Your task to perform on an android device: uninstall "Spotify: Music and Podcasts" Image 0: 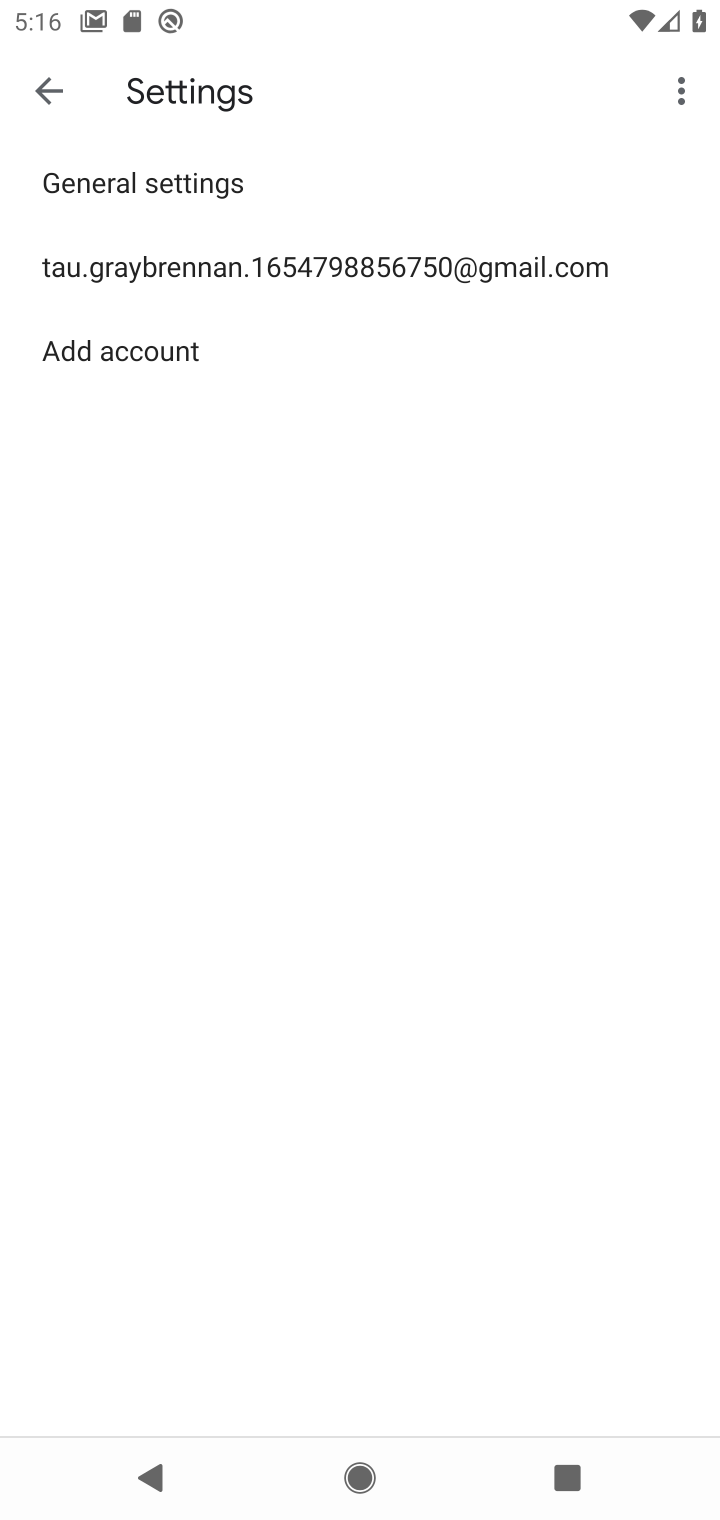
Step 0: press back button
Your task to perform on an android device: uninstall "Spotify: Music and Podcasts" Image 1: 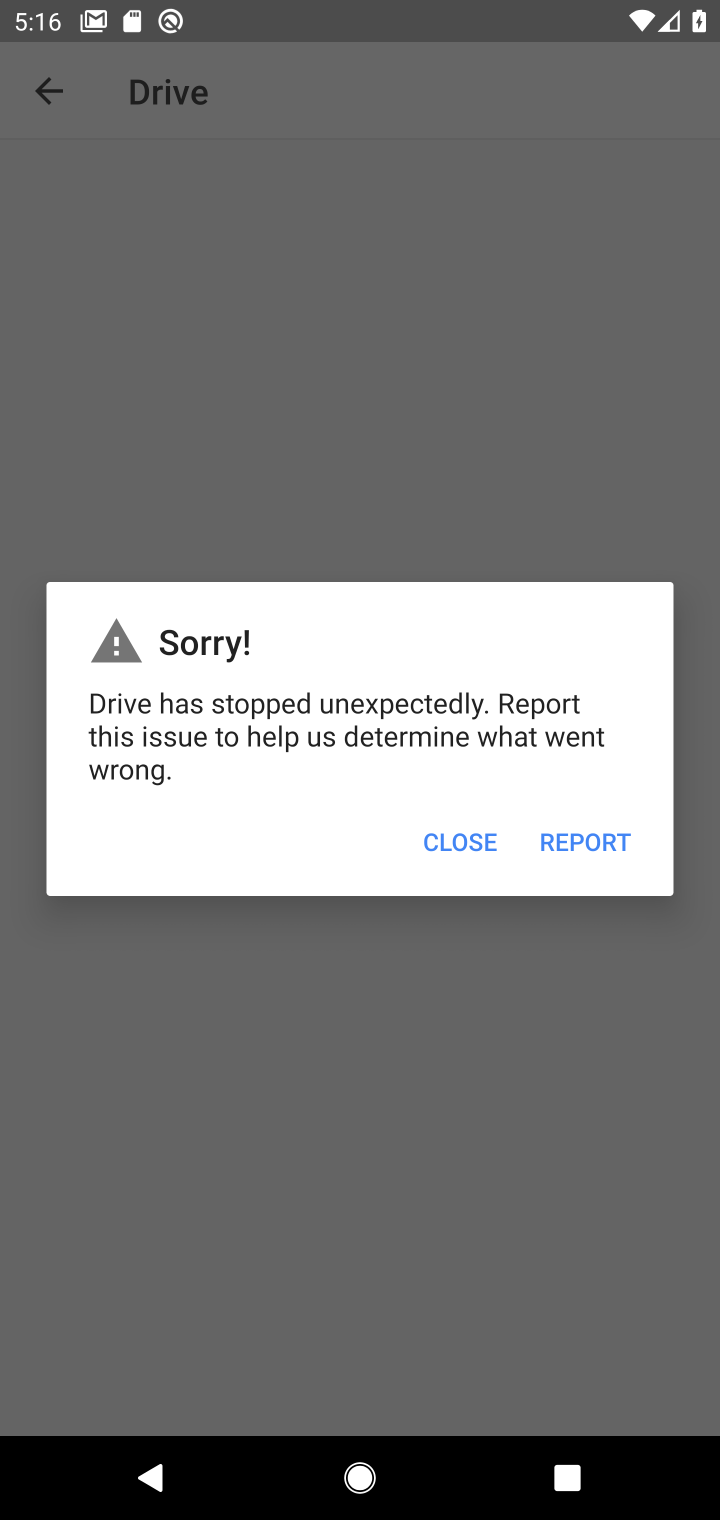
Step 1: click (464, 839)
Your task to perform on an android device: uninstall "Spotify: Music and Podcasts" Image 2: 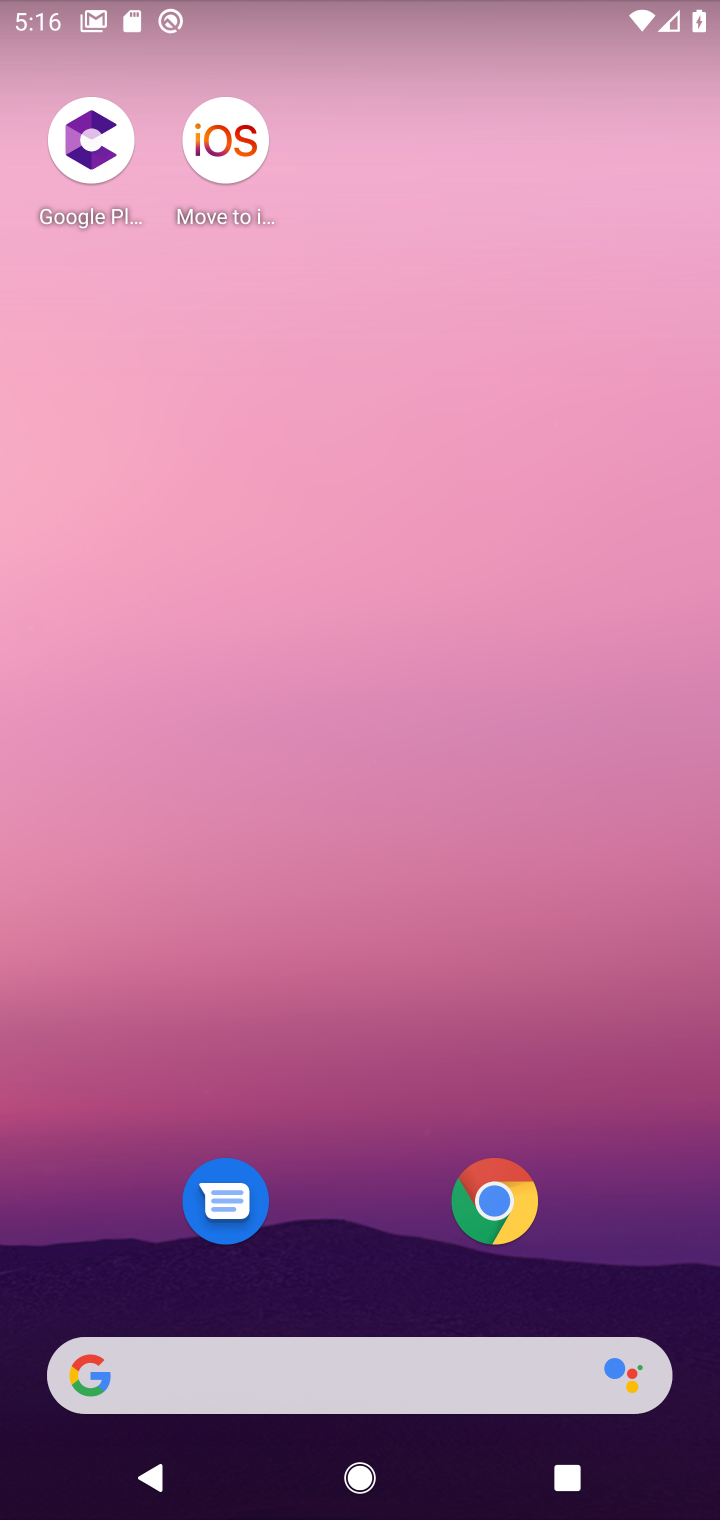
Step 2: drag from (334, 1199) to (357, 241)
Your task to perform on an android device: uninstall "Spotify: Music and Podcasts" Image 3: 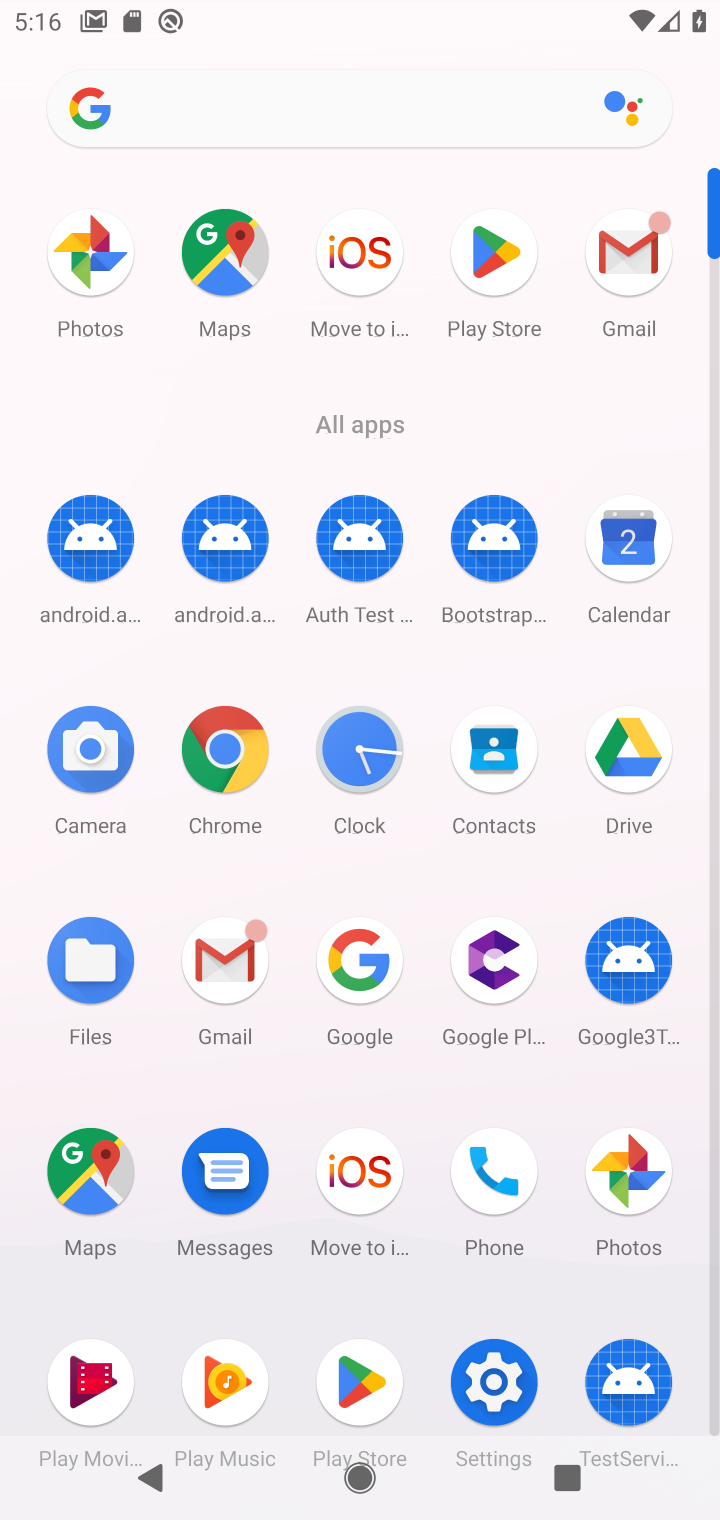
Step 3: click (350, 1388)
Your task to perform on an android device: uninstall "Spotify: Music and Podcasts" Image 4: 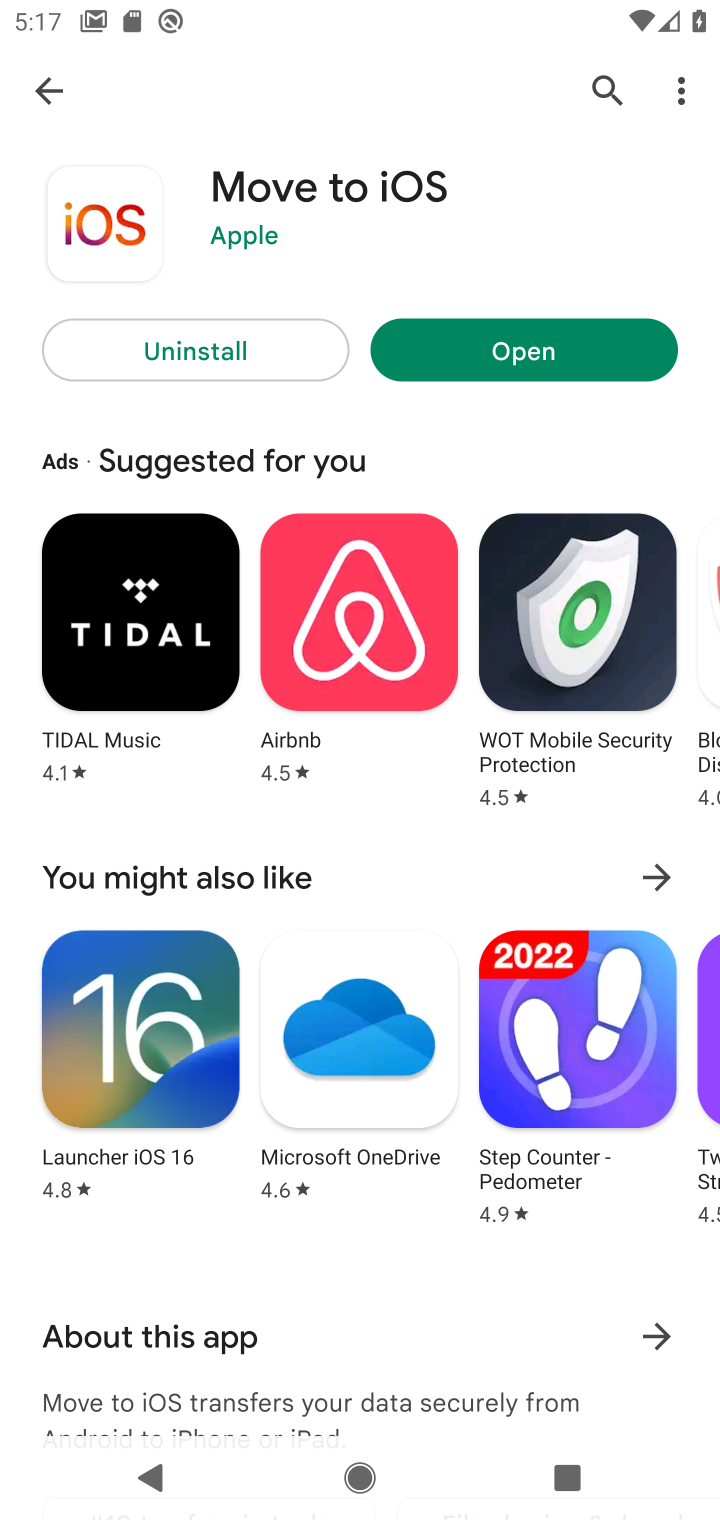
Step 4: click (595, 80)
Your task to perform on an android device: uninstall "Spotify: Music and Podcasts" Image 5: 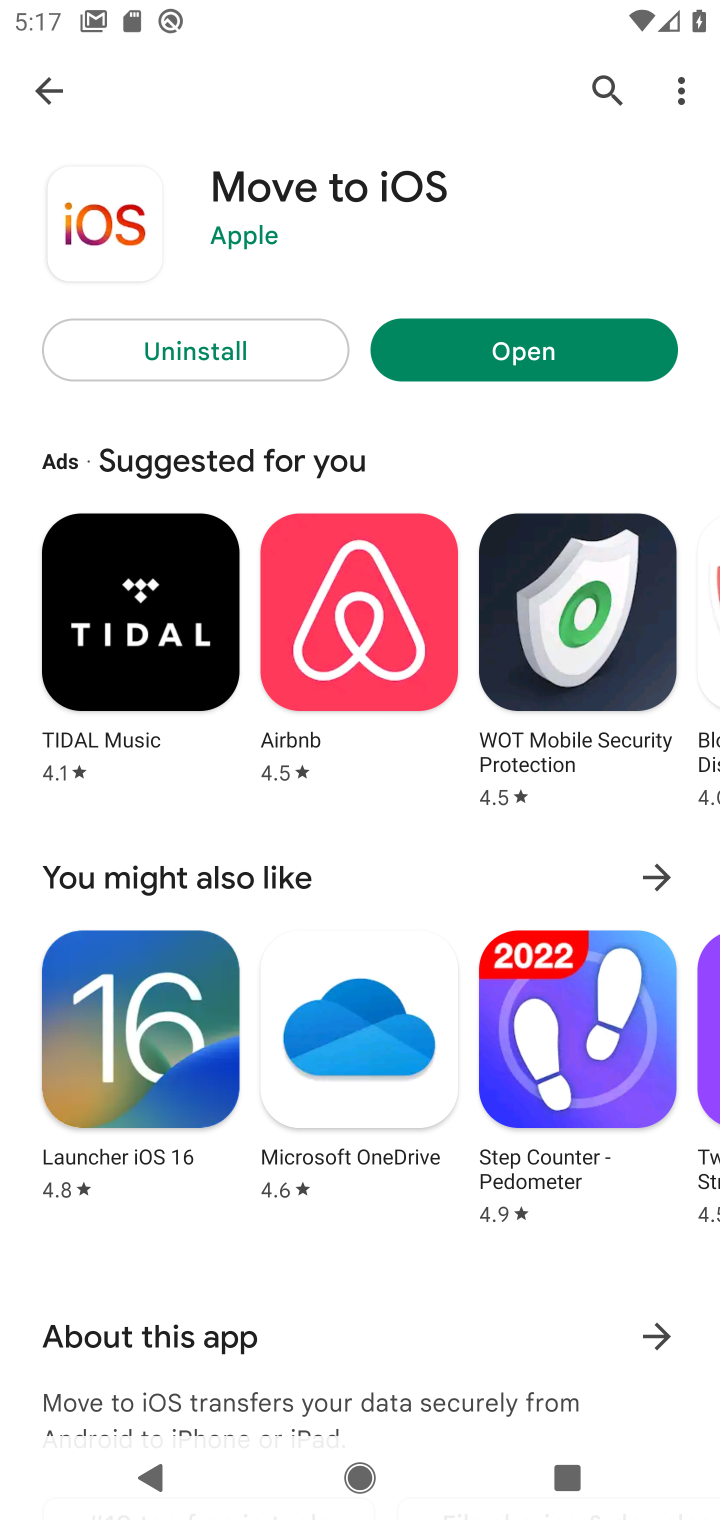
Step 5: click (605, 71)
Your task to perform on an android device: uninstall "Spotify: Music and Podcasts" Image 6: 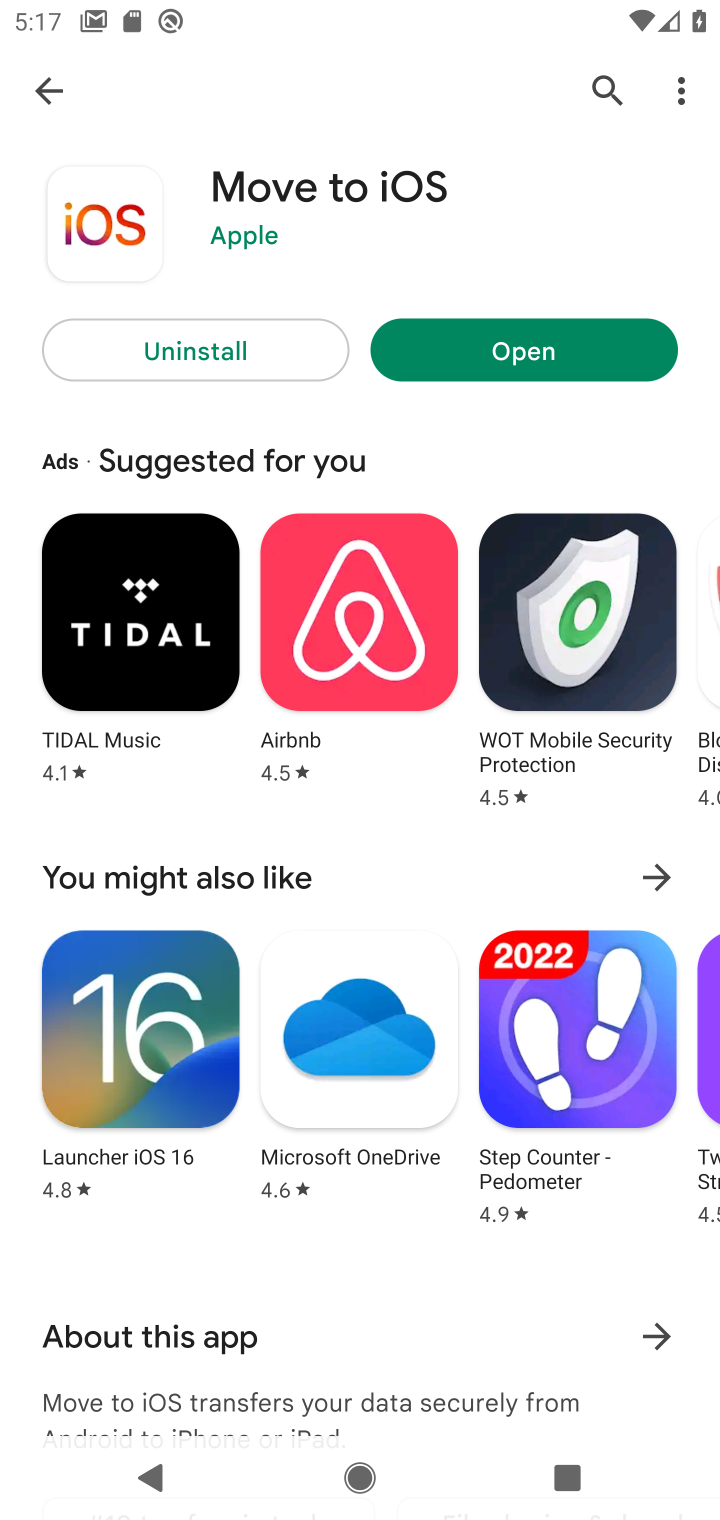
Step 6: click (599, 86)
Your task to perform on an android device: uninstall "Spotify: Music and Podcasts" Image 7: 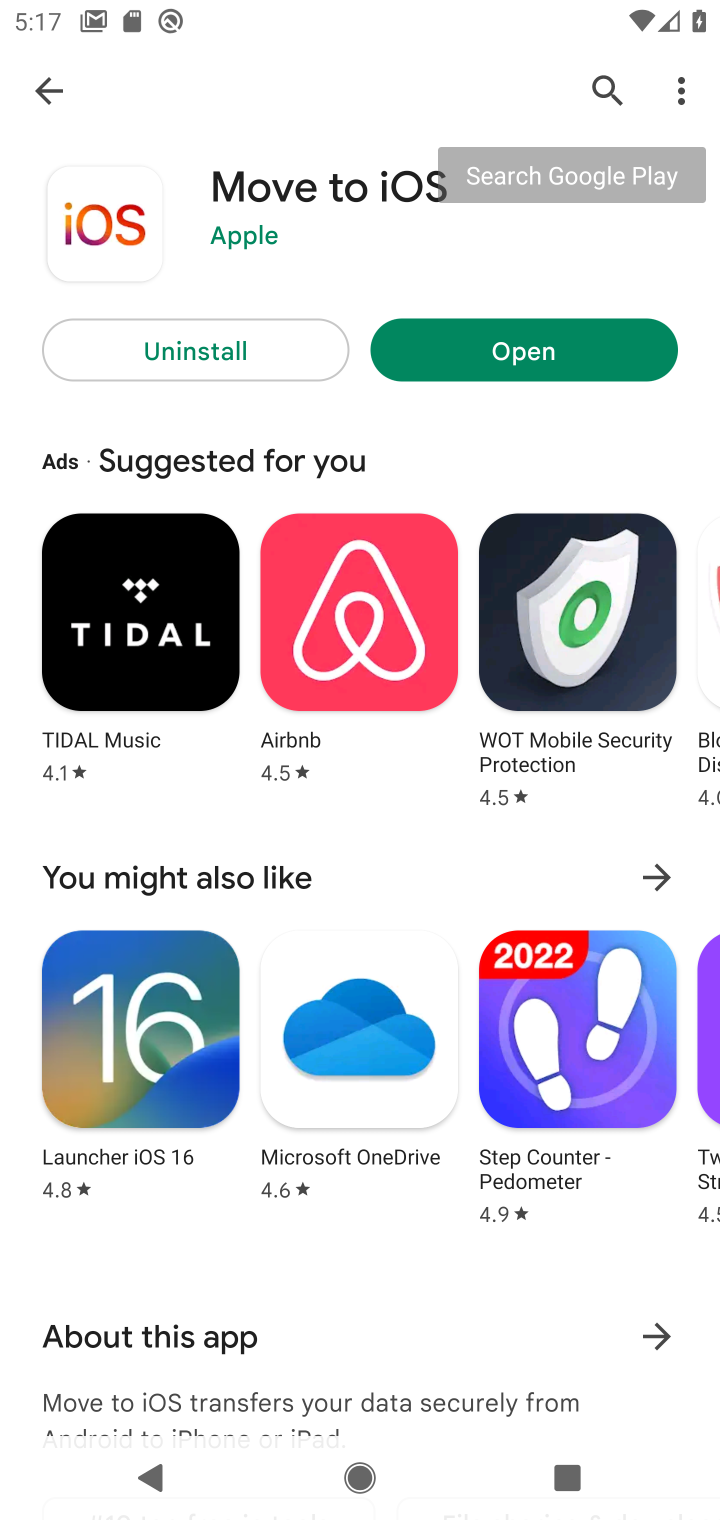
Step 7: click (610, 169)
Your task to perform on an android device: uninstall "Spotify: Music and Podcasts" Image 8: 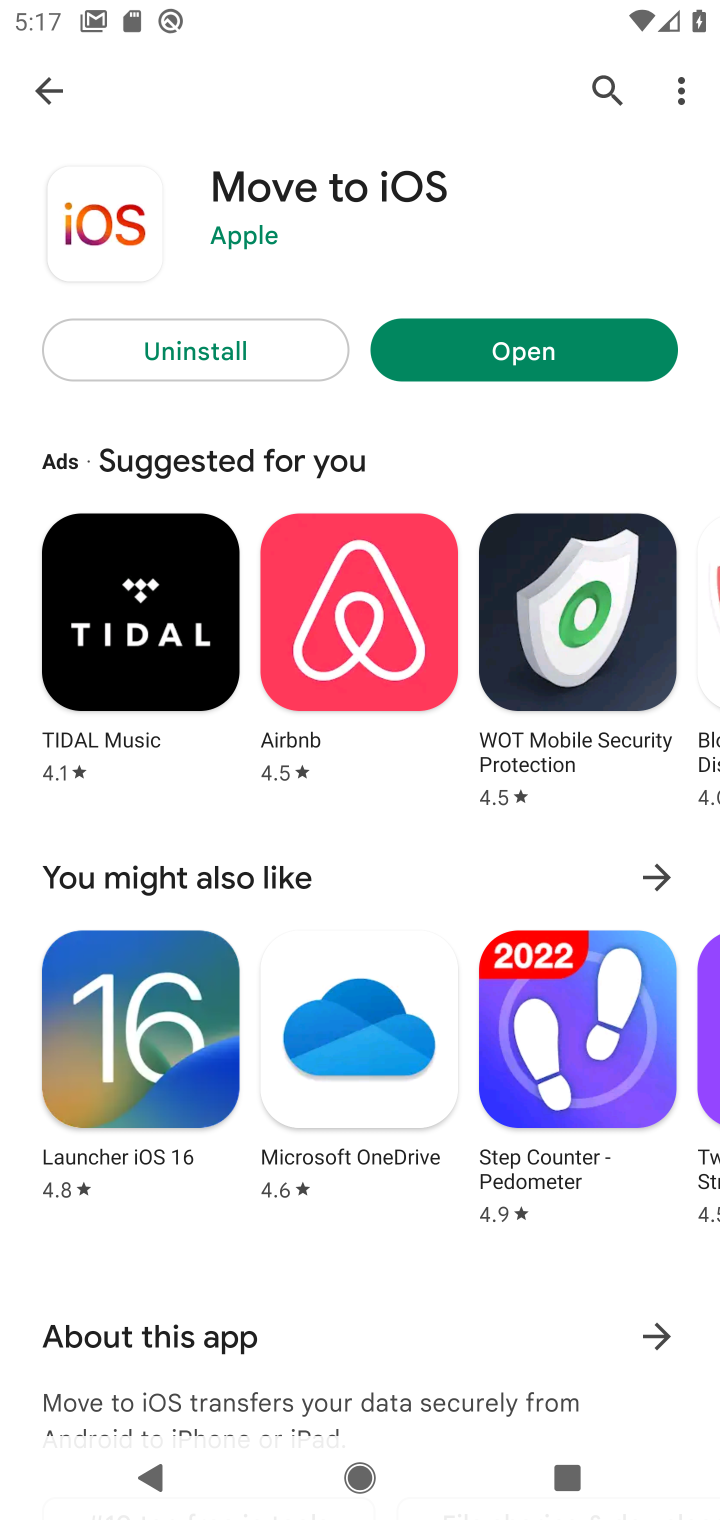
Step 8: click (52, 83)
Your task to perform on an android device: uninstall "Spotify: Music and Podcasts" Image 9: 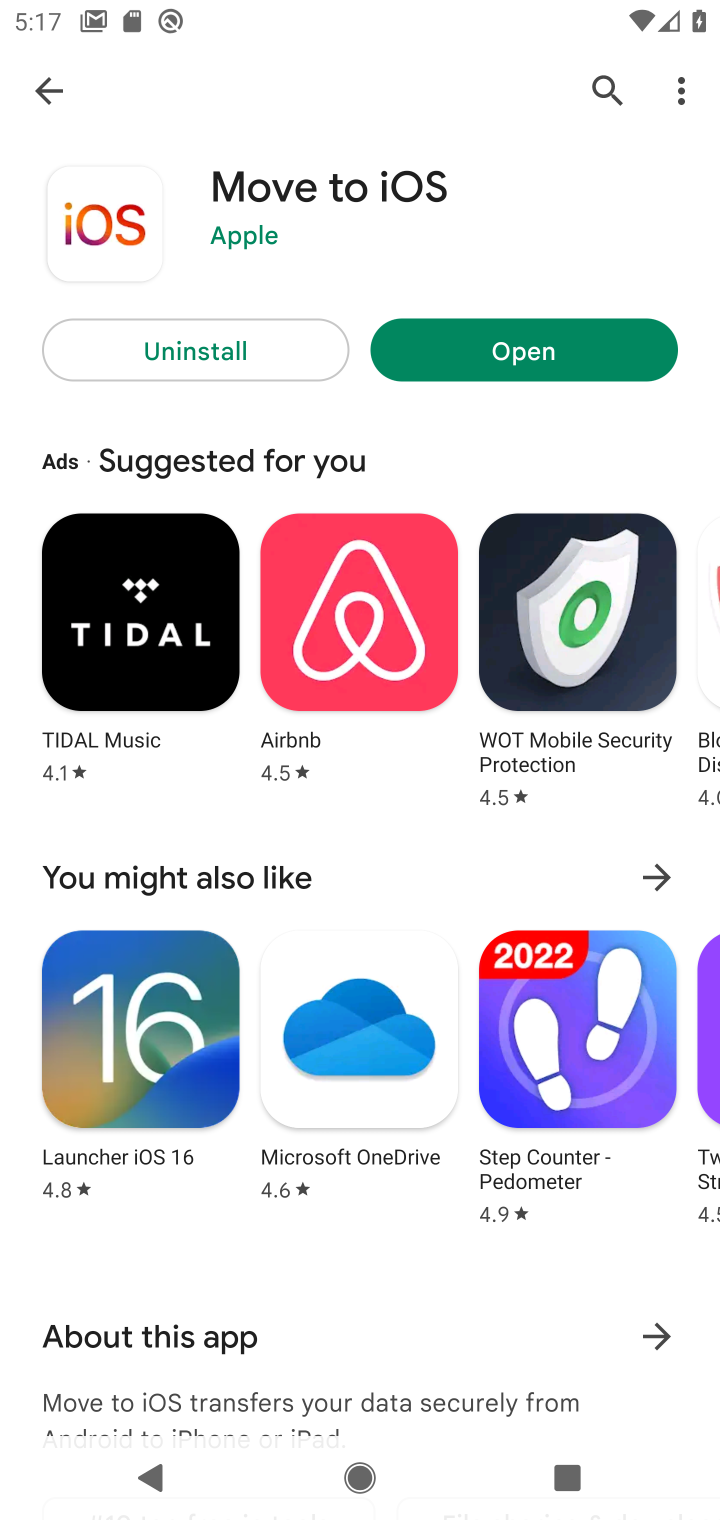
Step 9: click (45, 86)
Your task to perform on an android device: uninstall "Spotify: Music and Podcasts" Image 10: 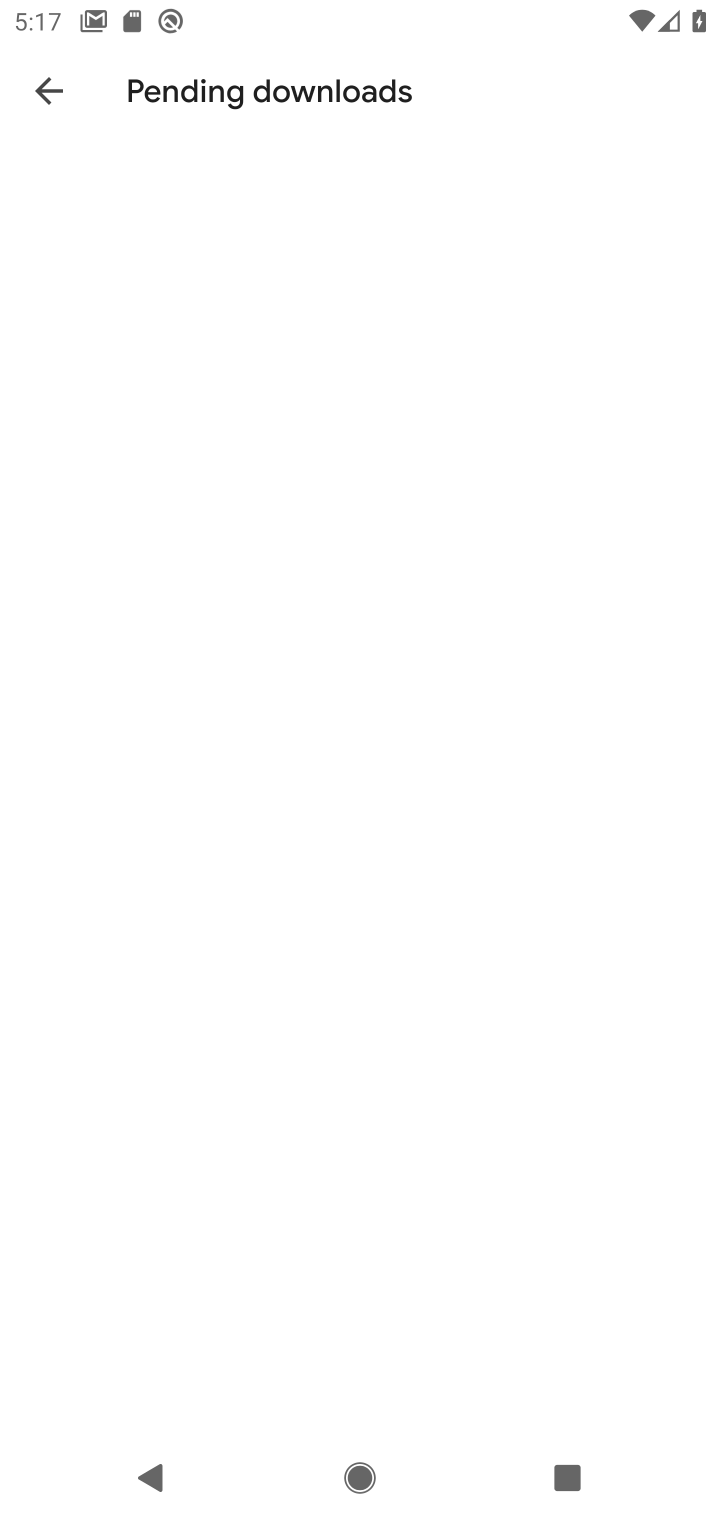
Step 10: click (45, 86)
Your task to perform on an android device: uninstall "Spotify: Music and Podcasts" Image 11: 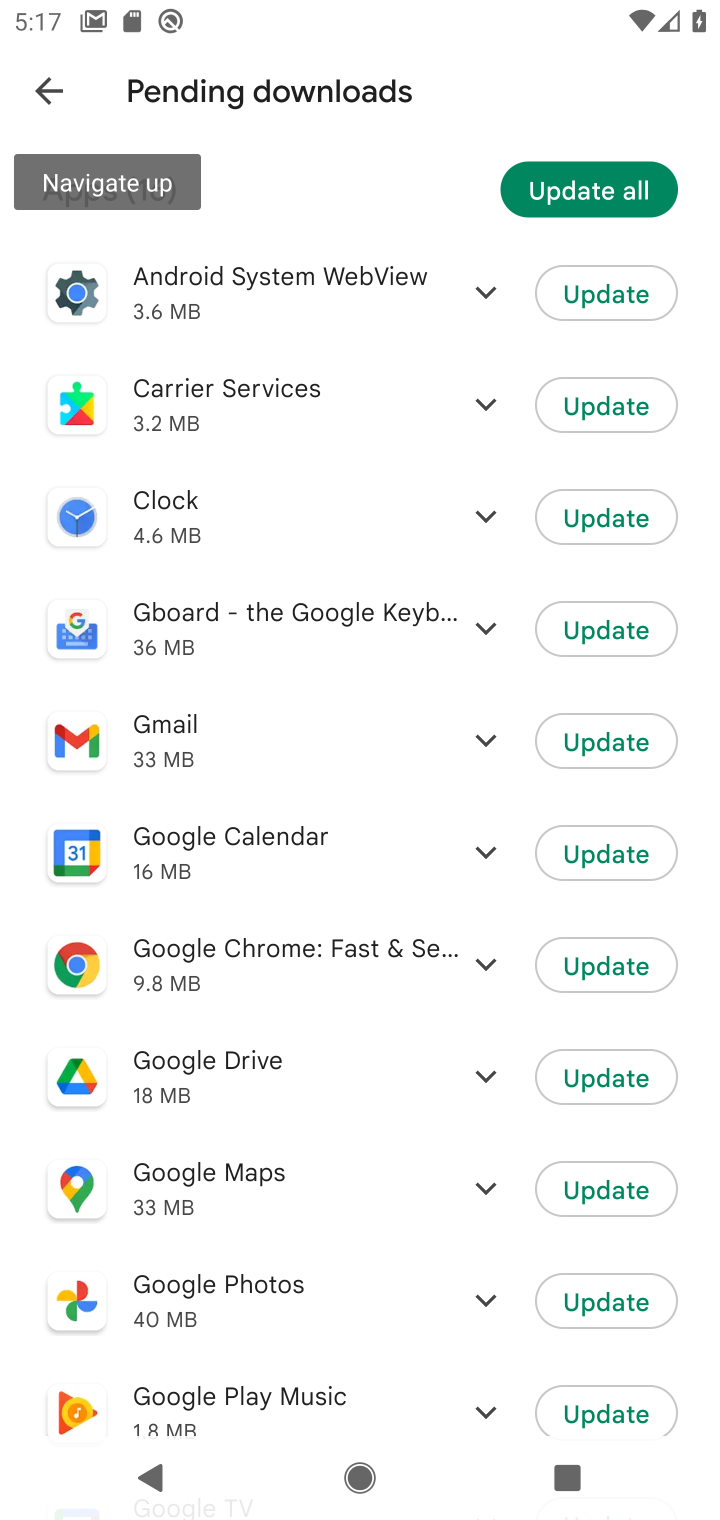
Step 11: click (55, 79)
Your task to perform on an android device: uninstall "Spotify: Music and Podcasts" Image 12: 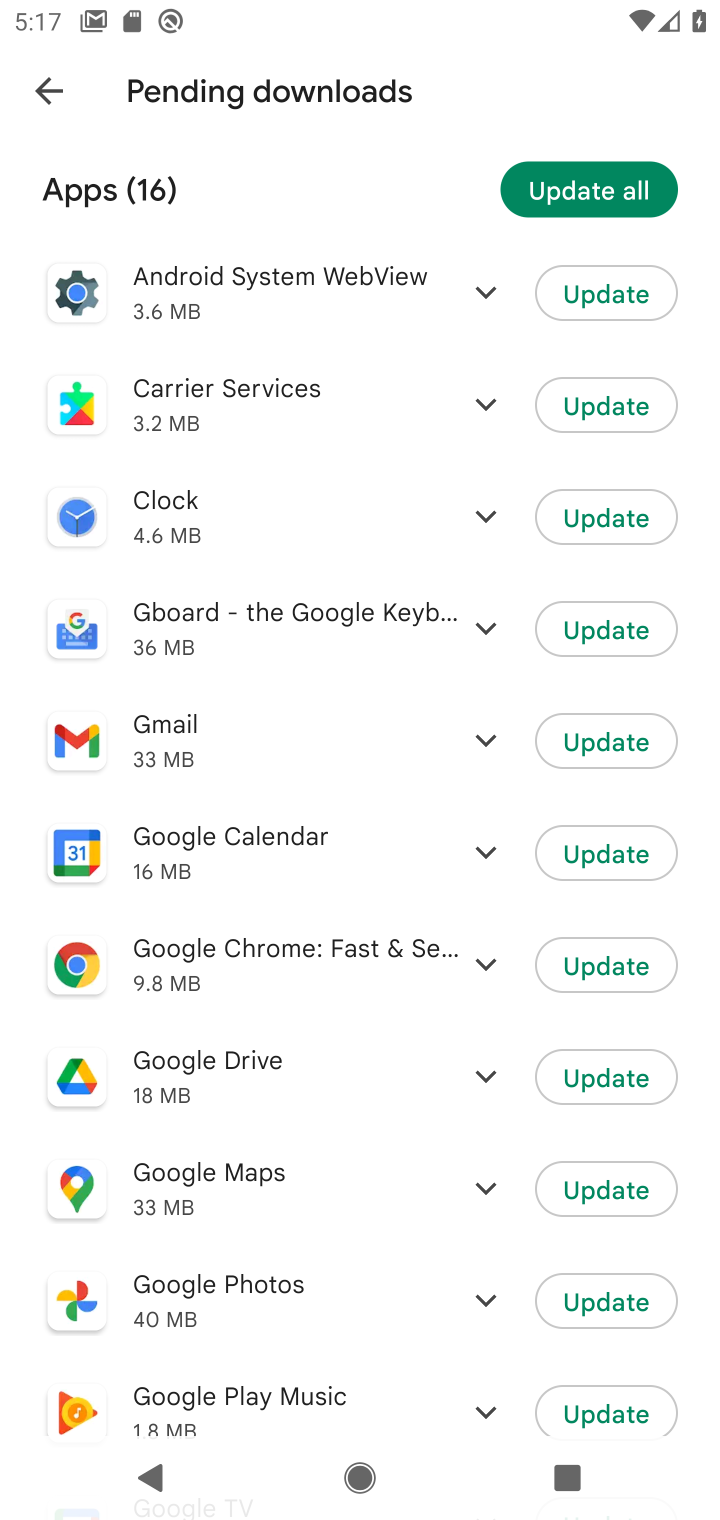
Step 12: press back button
Your task to perform on an android device: uninstall "Spotify: Music and Podcasts" Image 13: 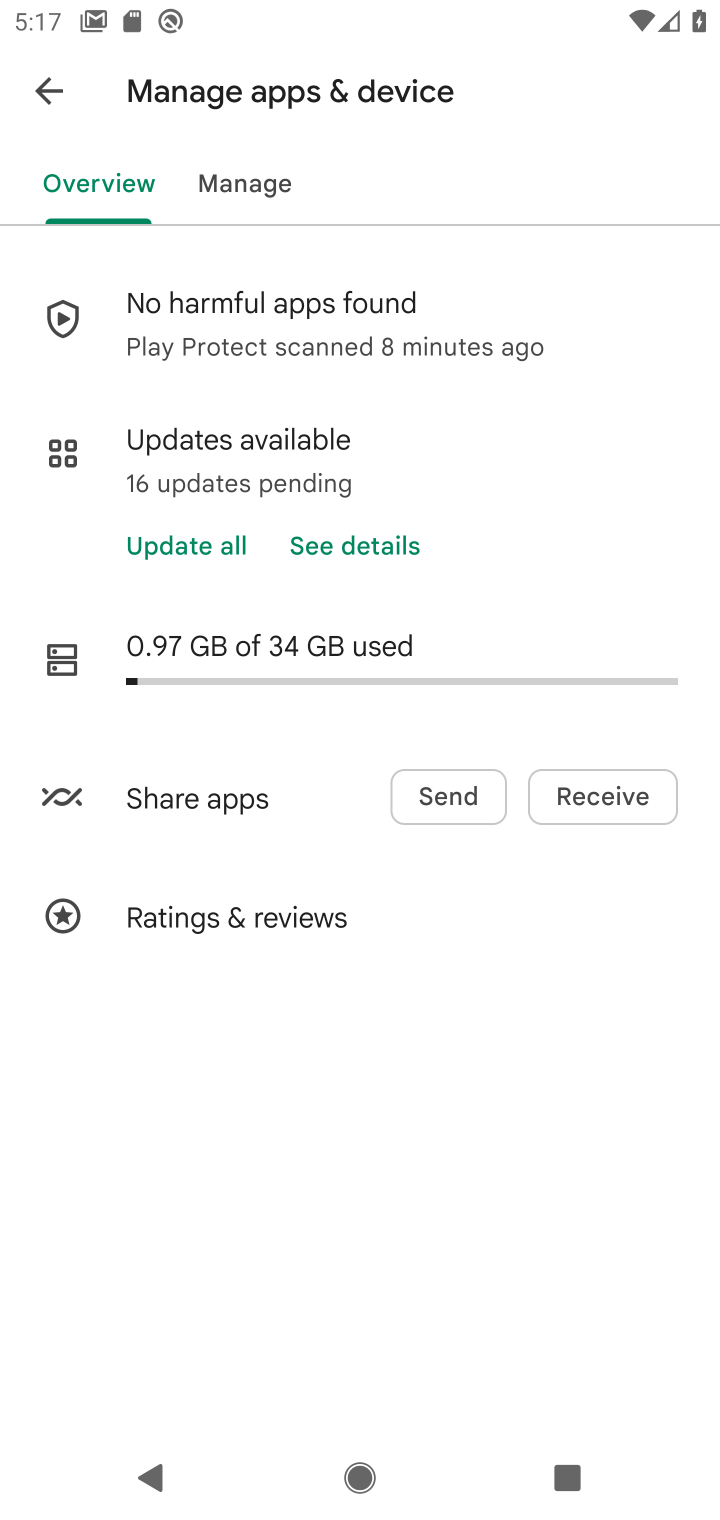
Step 13: press back button
Your task to perform on an android device: uninstall "Spotify: Music and Podcasts" Image 14: 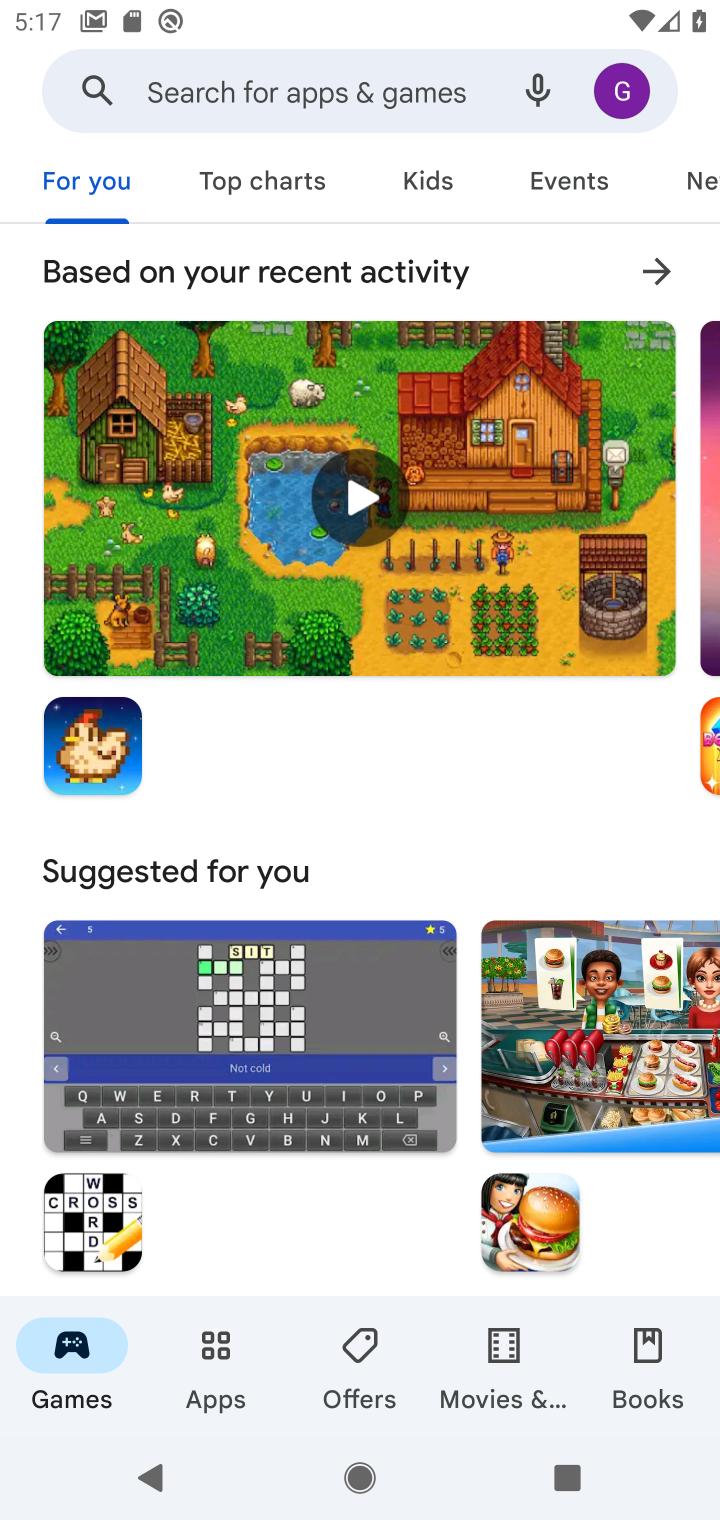
Step 14: click (277, 101)
Your task to perform on an android device: uninstall "Spotify: Music and Podcasts" Image 15: 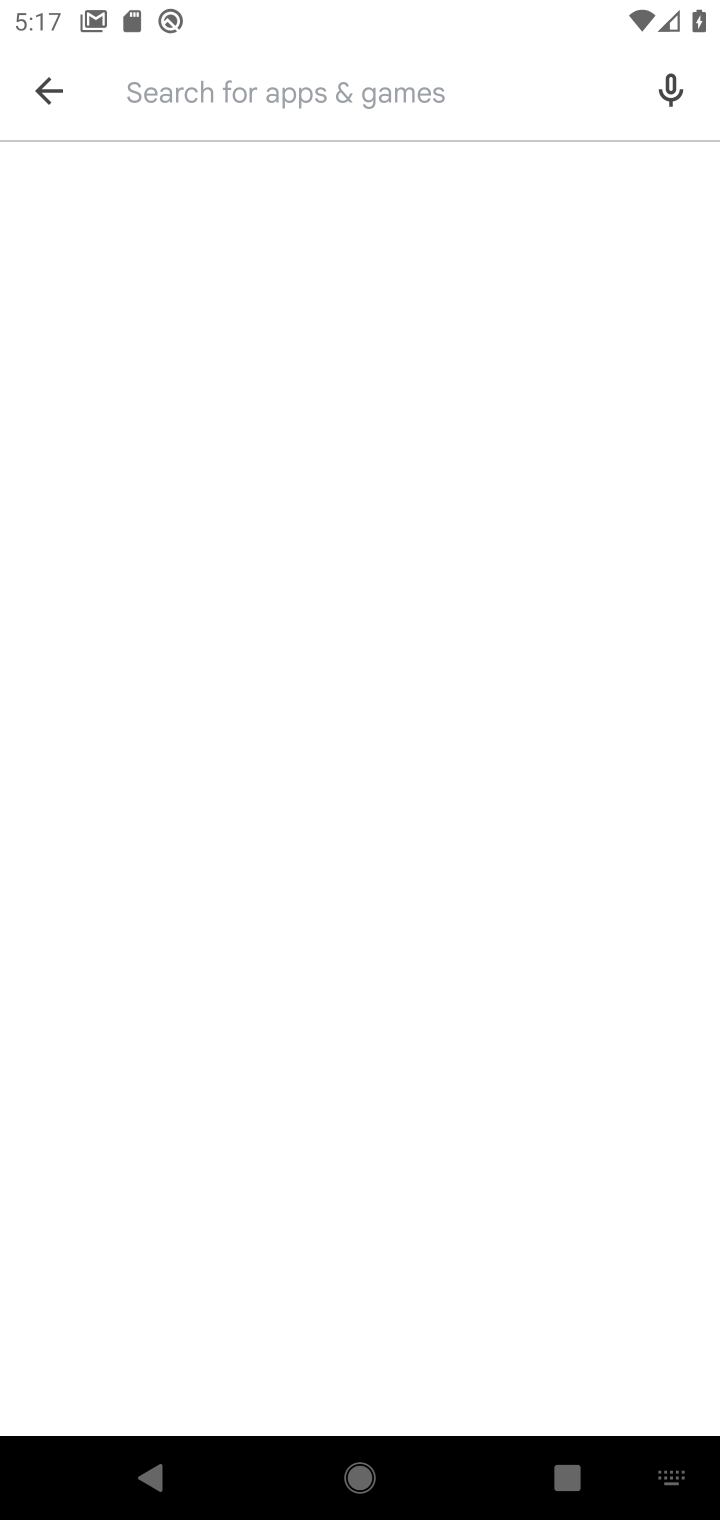
Step 15: type "Spotify: Music and Podcasts"
Your task to perform on an android device: uninstall "Spotify: Music and Podcasts" Image 16: 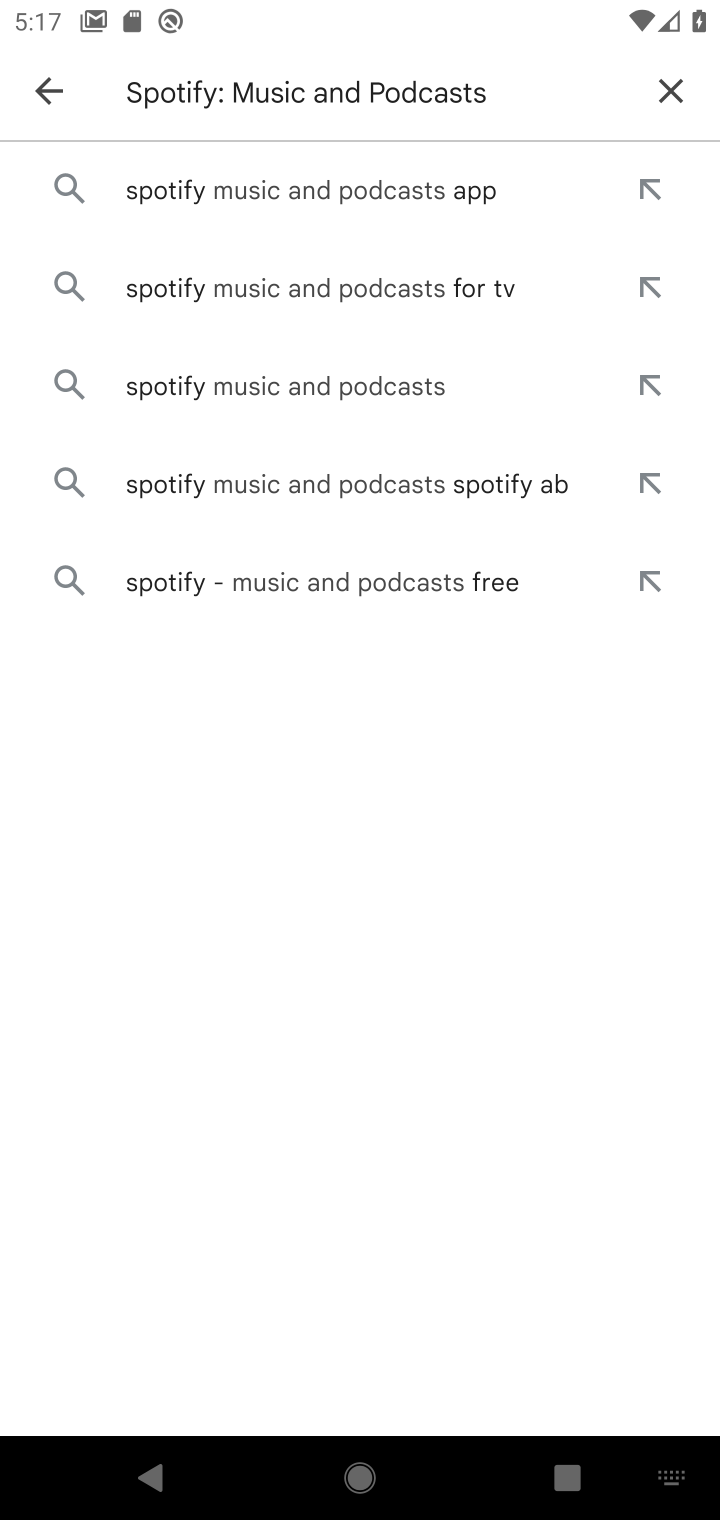
Step 16: click (439, 193)
Your task to perform on an android device: uninstall "Spotify: Music and Podcasts" Image 17: 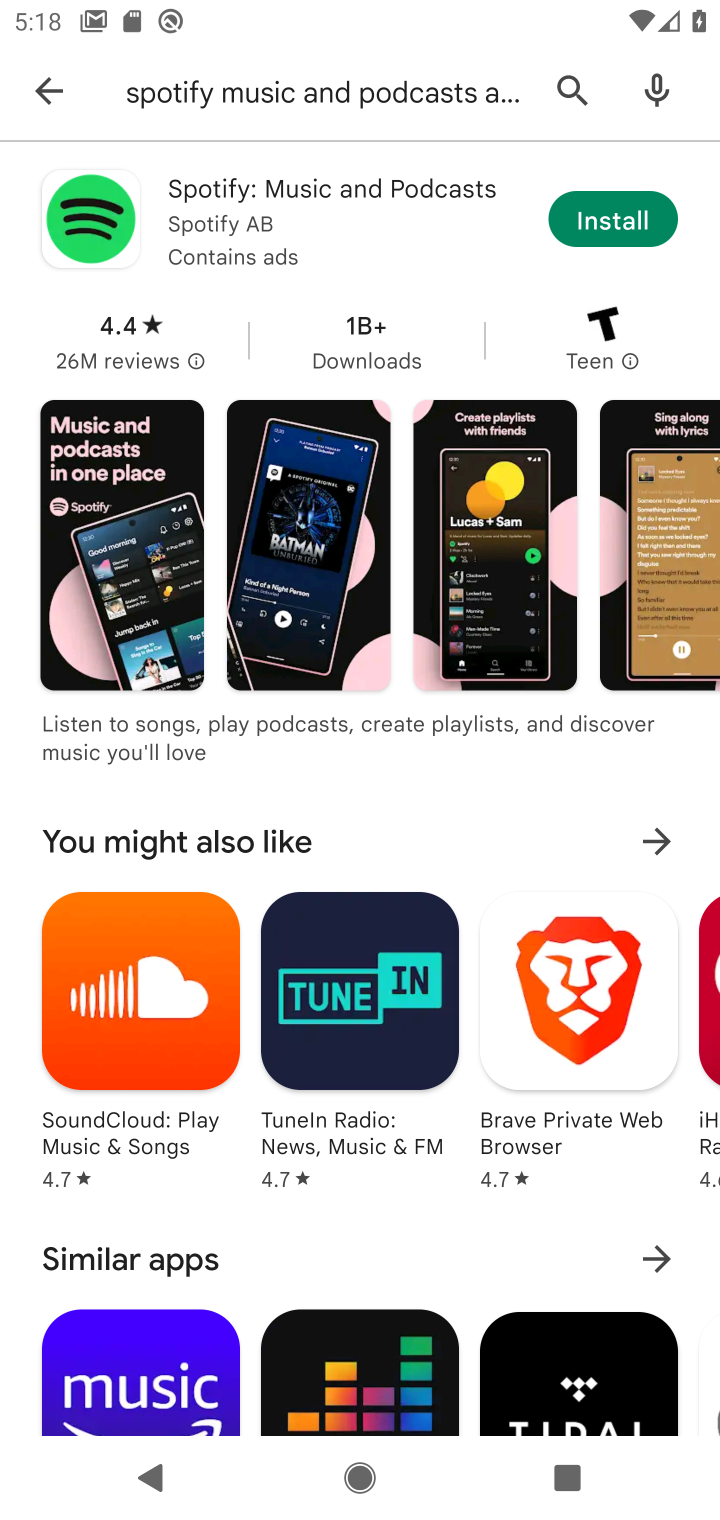
Step 17: task complete